Your task to perform on an android device: turn off location Image 0: 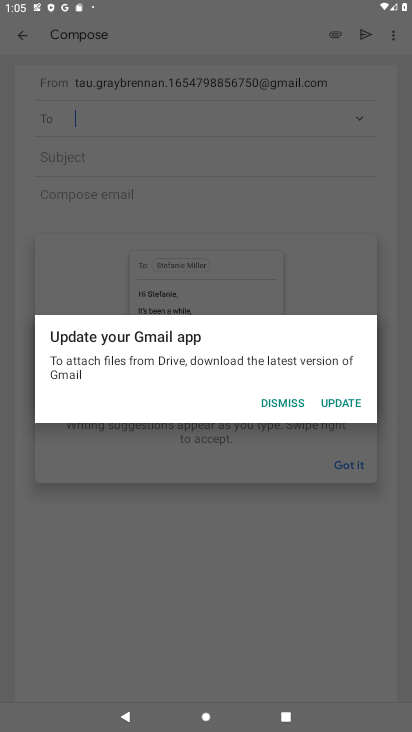
Step 0: press home button
Your task to perform on an android device: turn off location Image 1: 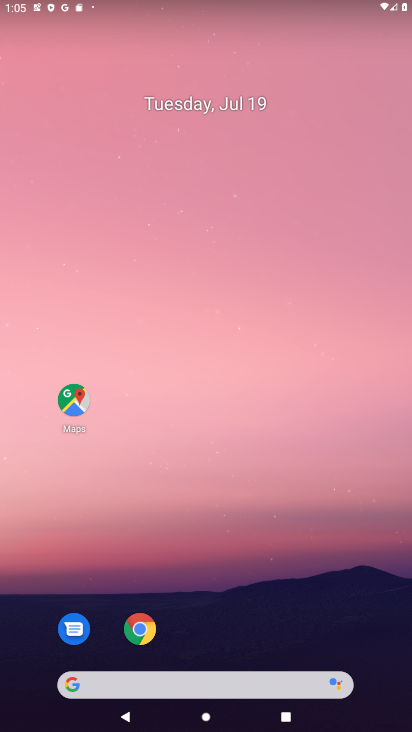
Step 1: drag from (202, 628) to (209, 349)
Your task to perform on an android device: turn off location Image 2: 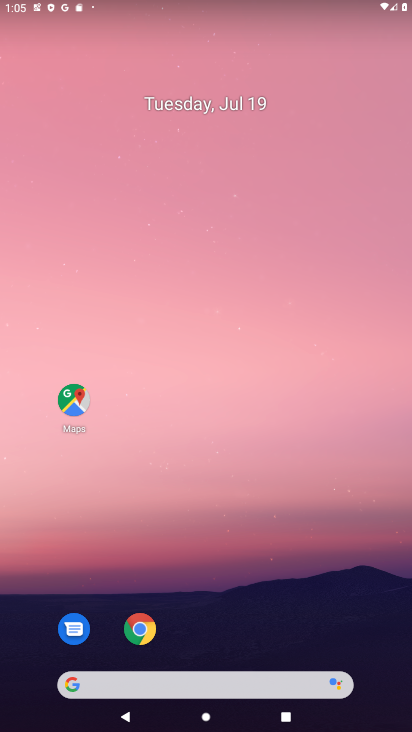
Step 2: drag from (200, 514) to (247, 80)
Your task to perform on an android device: turn off location Image 3: 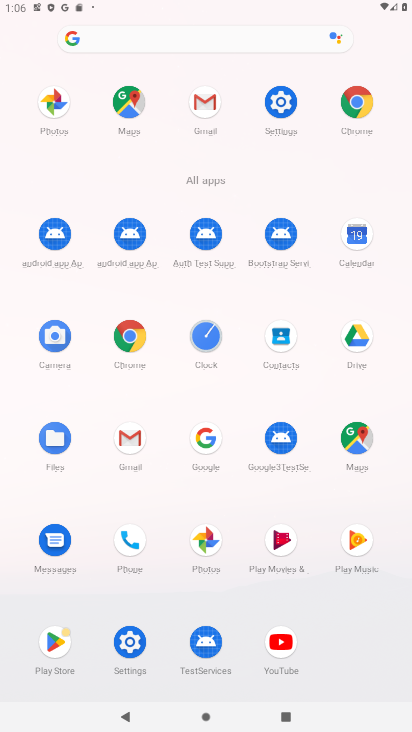
Step 3: click (135, 661)
Your task to perform on an android device: turn off location Image 4: 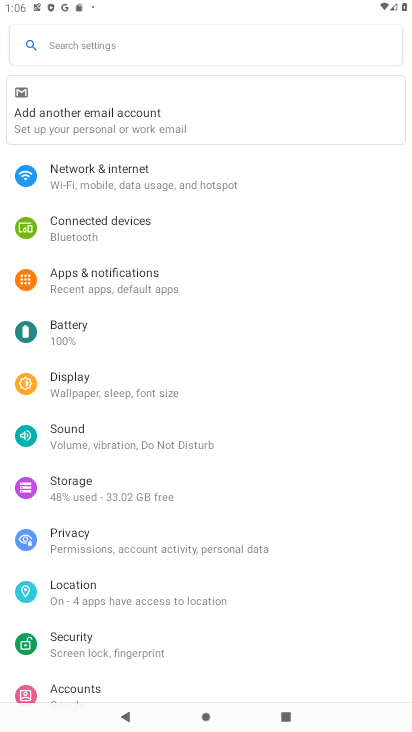
Step 4: click (102, 590)
Your task to perform on an android device: turn off location Image 5: 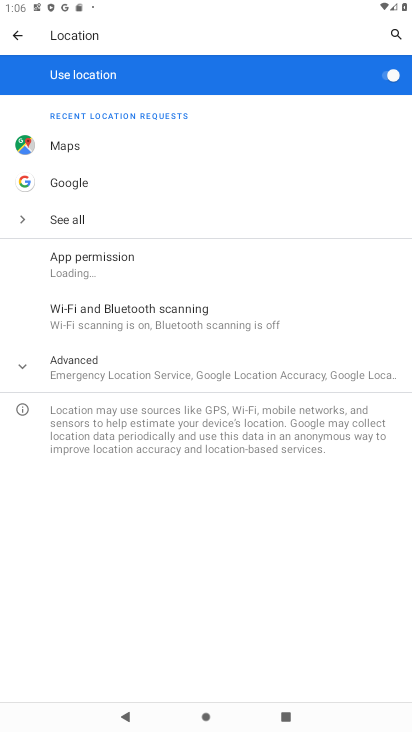
Step 5: click (372, 71)
Your task to perform on an android device: turn off location Image 6: 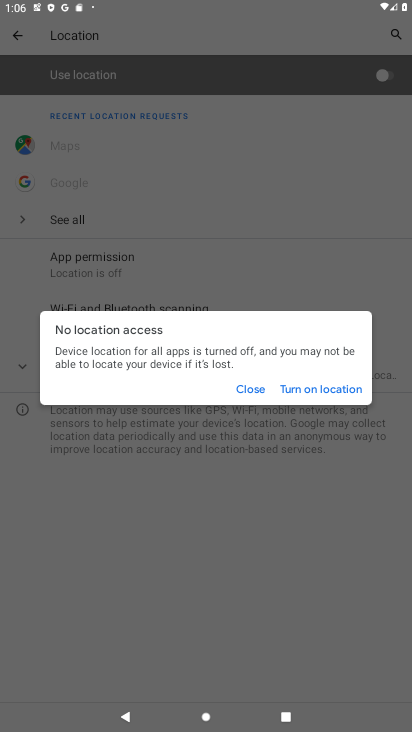
Step 6: task complete